Your task to perform on an android device: Open Yahoo.com Image 0: 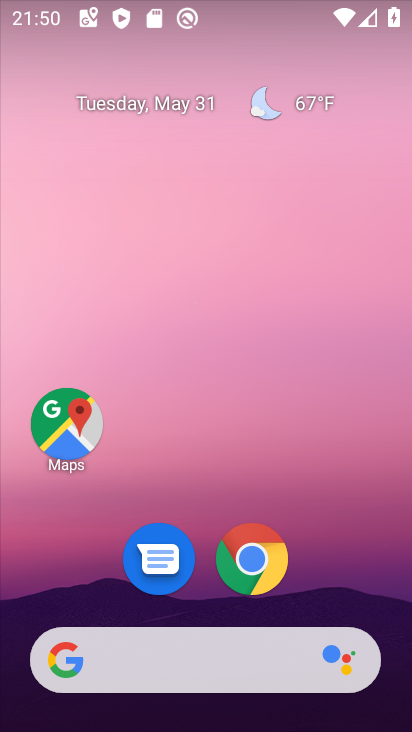
Step 0: click (257, 557)
Your task to perform on an android device: Open Yahoo.com Image 1: 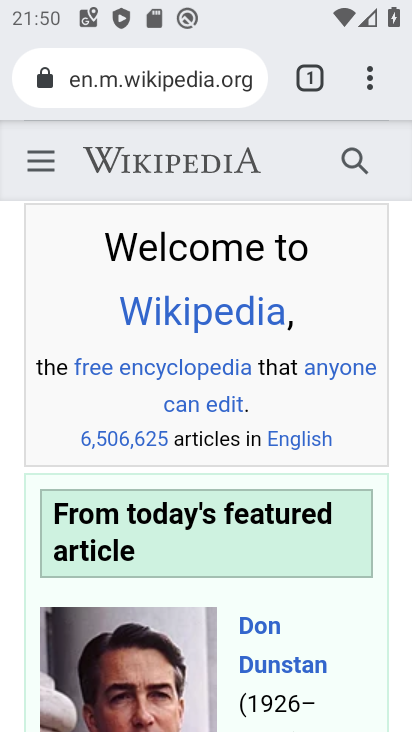
Step 1: press back button
Your task to perform on an android device: Open Yahoo.com Image 2: 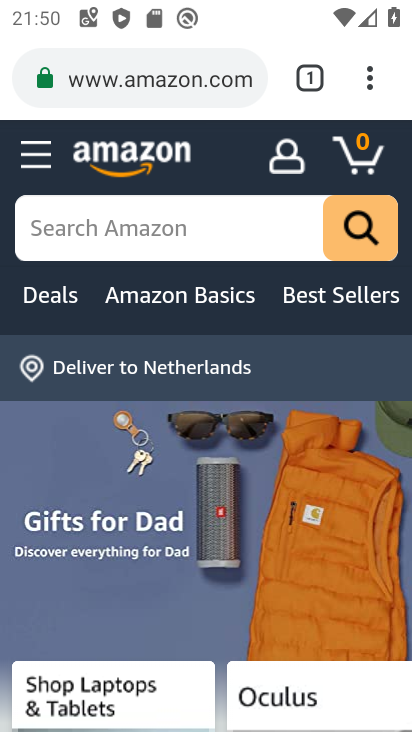
Step 2: press back button
Your task to perform on an android device: Open Yahoo.com Image 3: 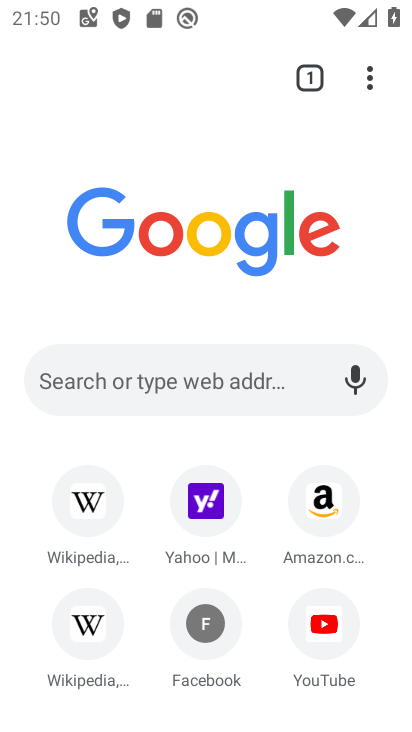
Step 3: click (208, 513)
Your task to perform on an android device: Open Yahoo.com Image 4: 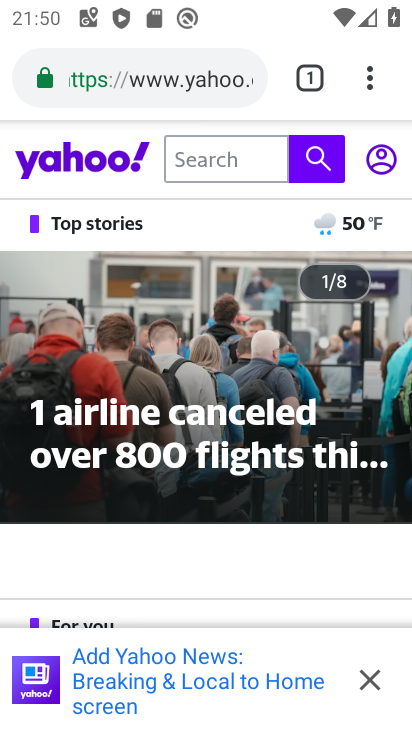
Step 4: task complete